Your task to perform on an android device: Open eBay Image 0: 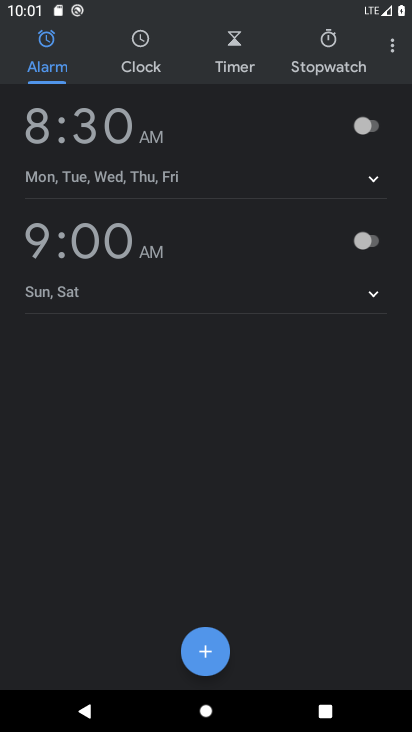
Step 0: press home button
Your task to perform on an android device: Open eBay Image 1: 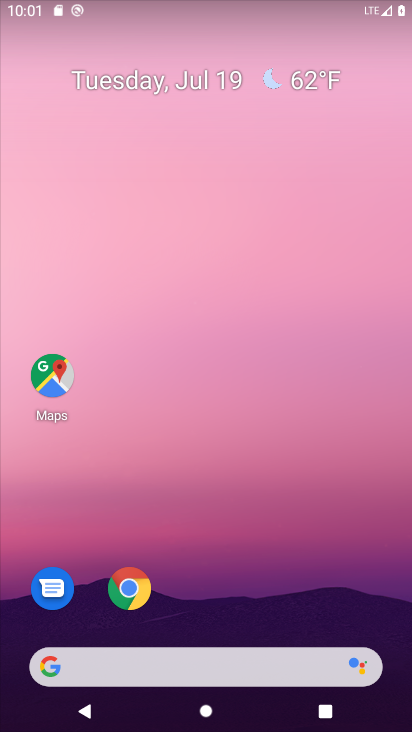
Step 1: click (129, 590)
Your task to perform on an android device: Open eBay Image 2: 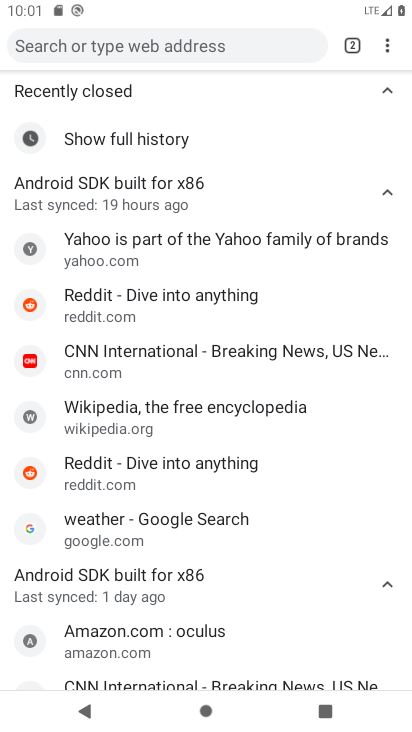
Step 2: click (139, 46)
Your task to perform on an android device: Open eBay Image 3: 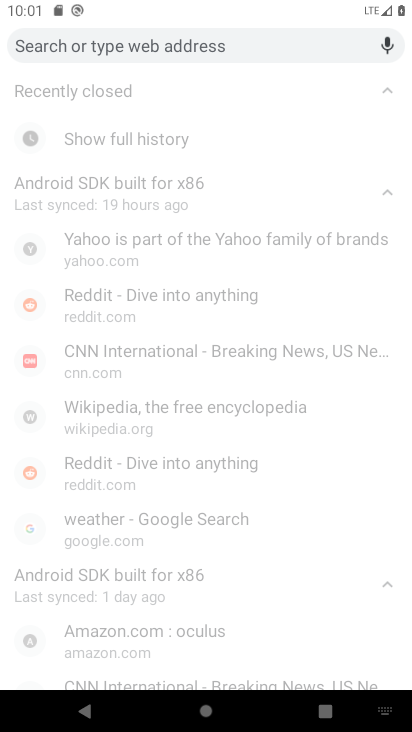
Step 3: type "www.ebay.com"
Your task to perform on an android device: Open eBay Image 4: 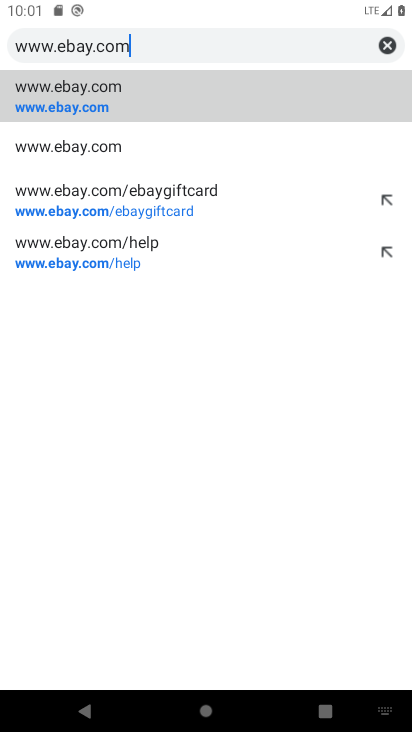
Step 4: click (48, 106)
Your task to perform on an android device: Open eBay Image 5: 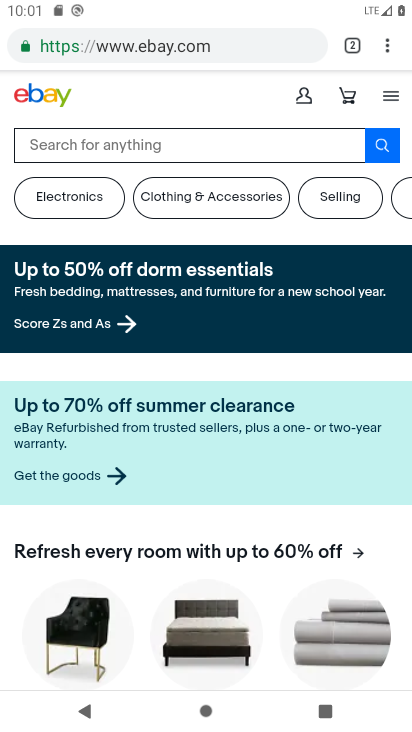
Step 5: task complete